Your task to perform on an android device: uninstall "Lyft - Rideshare, Bikes, Scooters & Transit" Image 0: 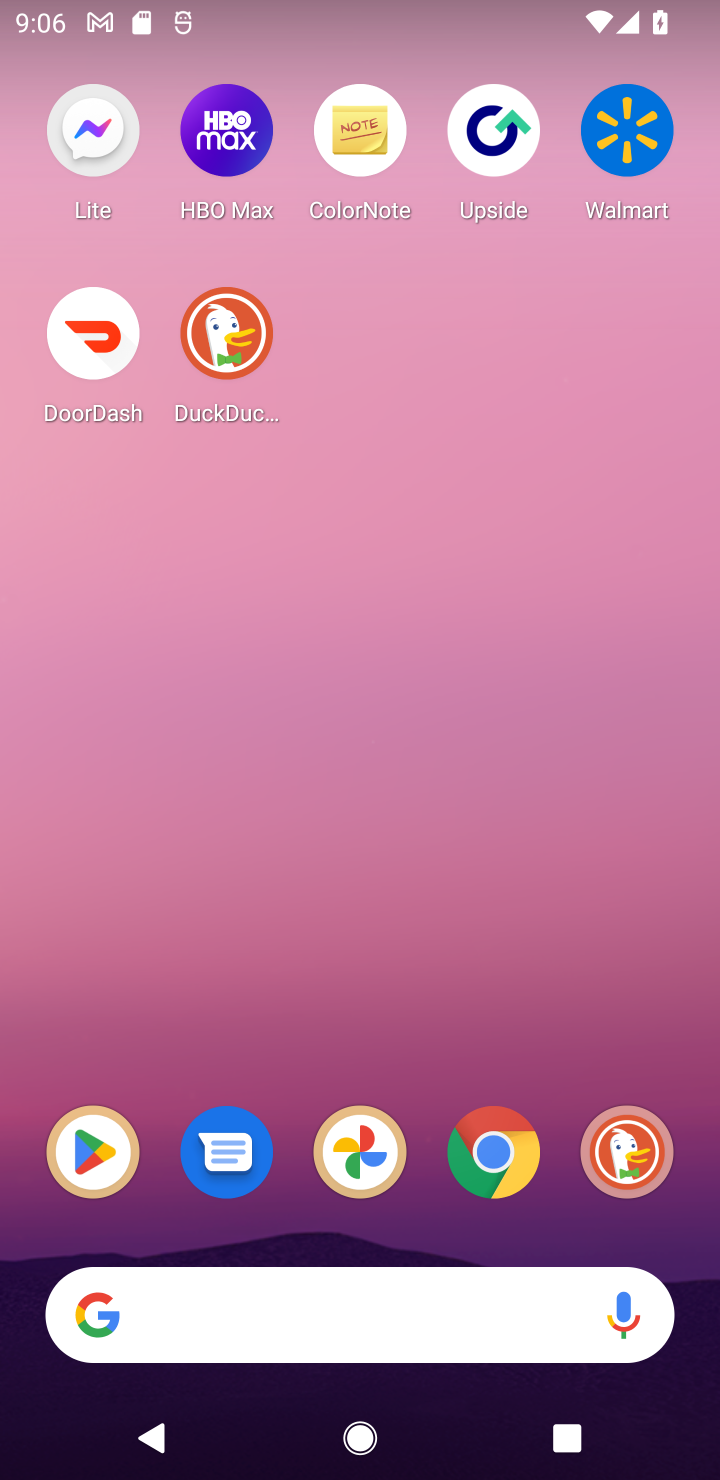
Step 0: drag from (355, 937) to (359, 226)
Your task to perform on an android device: uninstall "Lyft - Rideshare, Bikes, Scooters & Transit" Image 1: 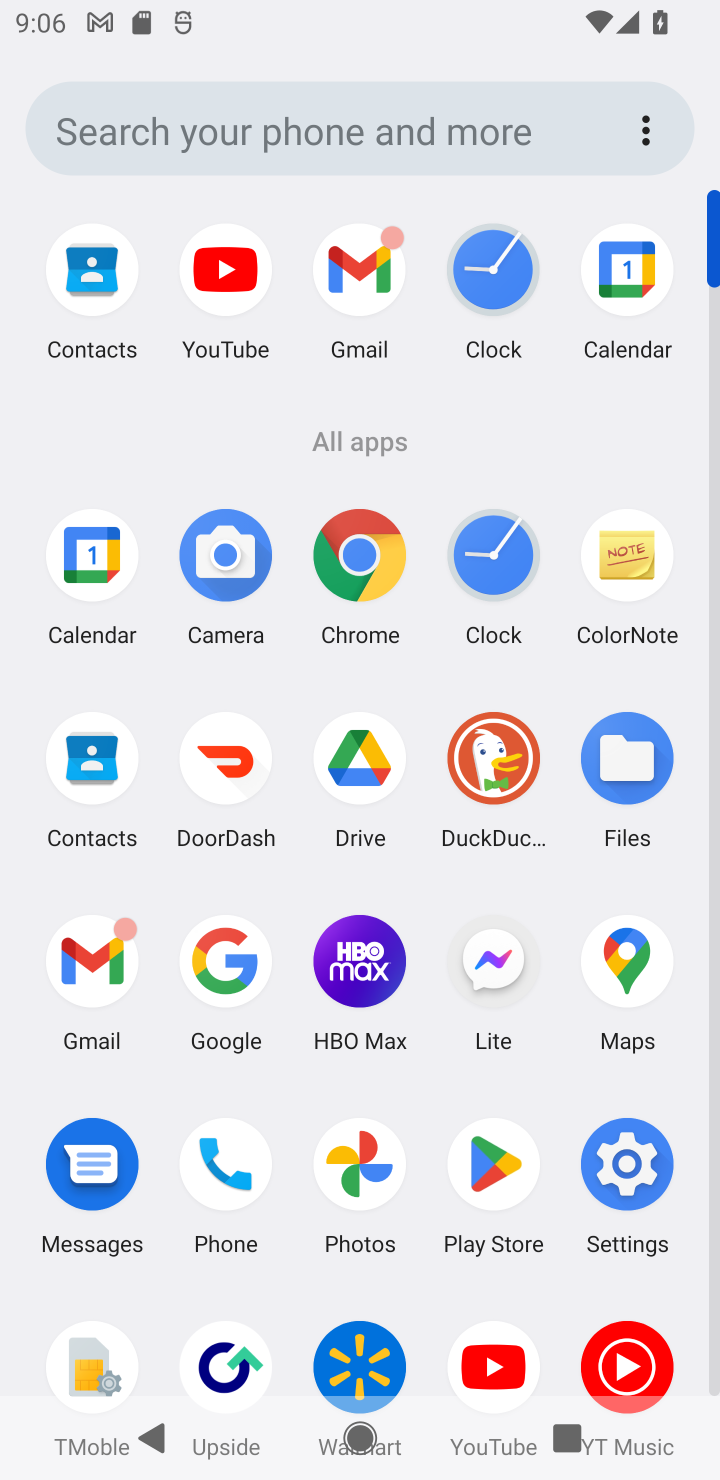
Step 1: click (509, 1160)
Your task to perform on an android device: uninstall "Lyft - Rideshare, Bikes, Scooters & Transit" Image 2: 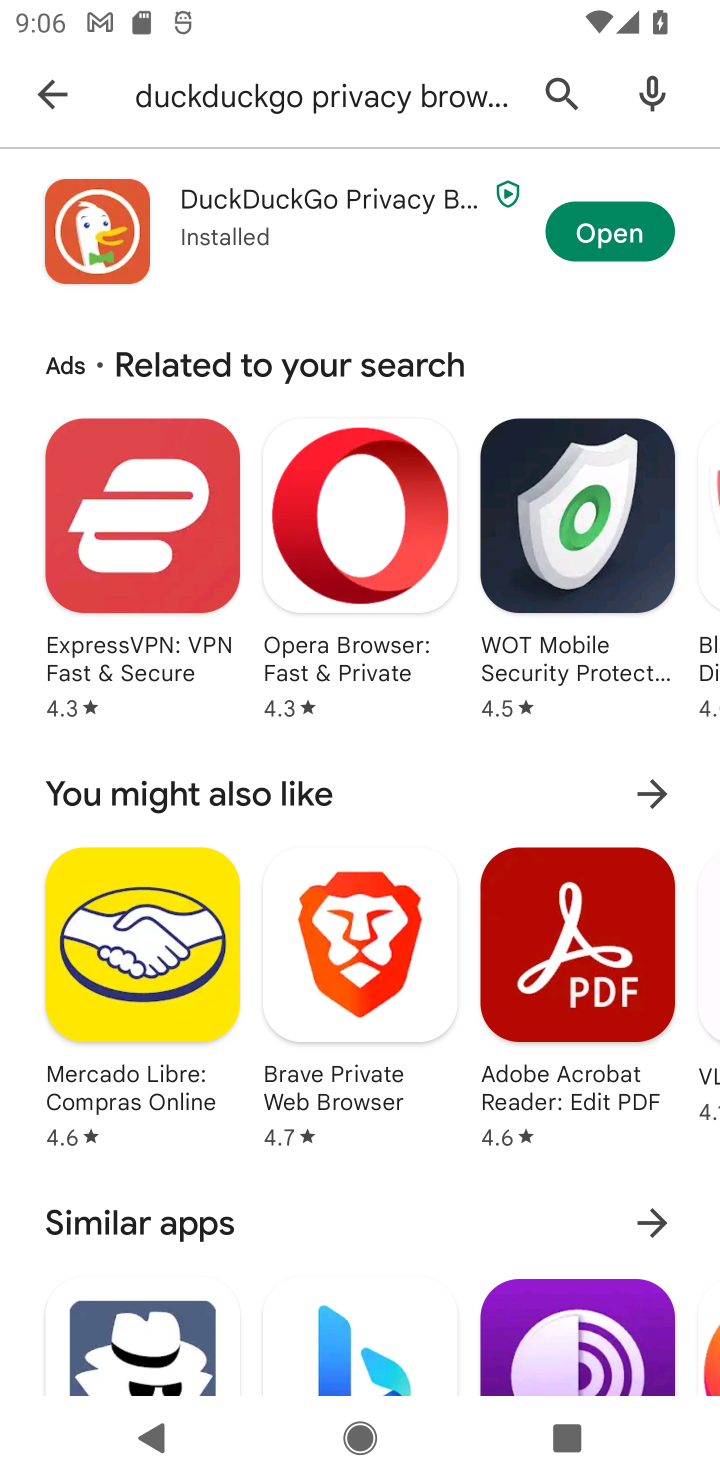
Step 2: click (44, 80)
Your task to perform on an android device: uninstall "Lyft - Rideshare, Bikes, Scooters & Transit" Image 3: 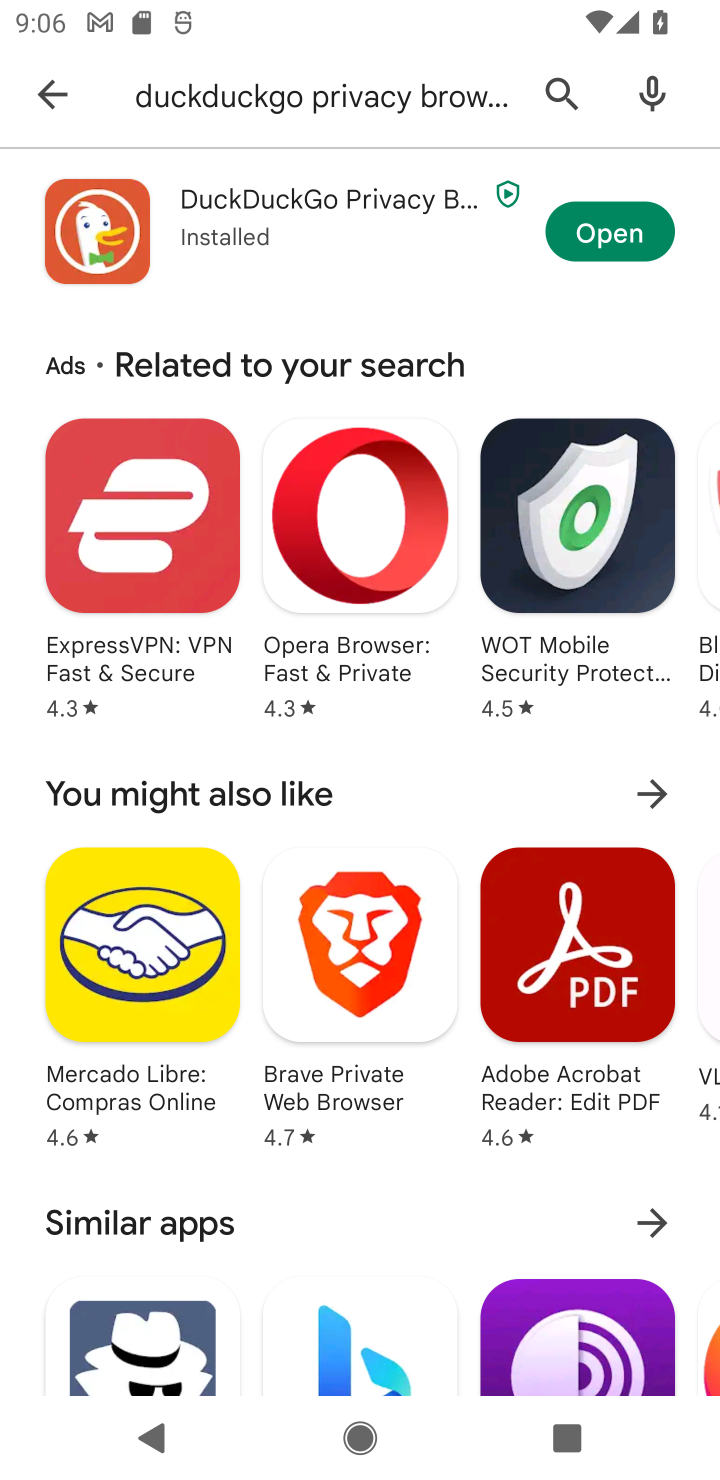
Step 3: click (44, 80)
Your task to perform on an android device: uninstall "Lyft - Rideshare, Bikes, Scooters & Transit" Image 4: 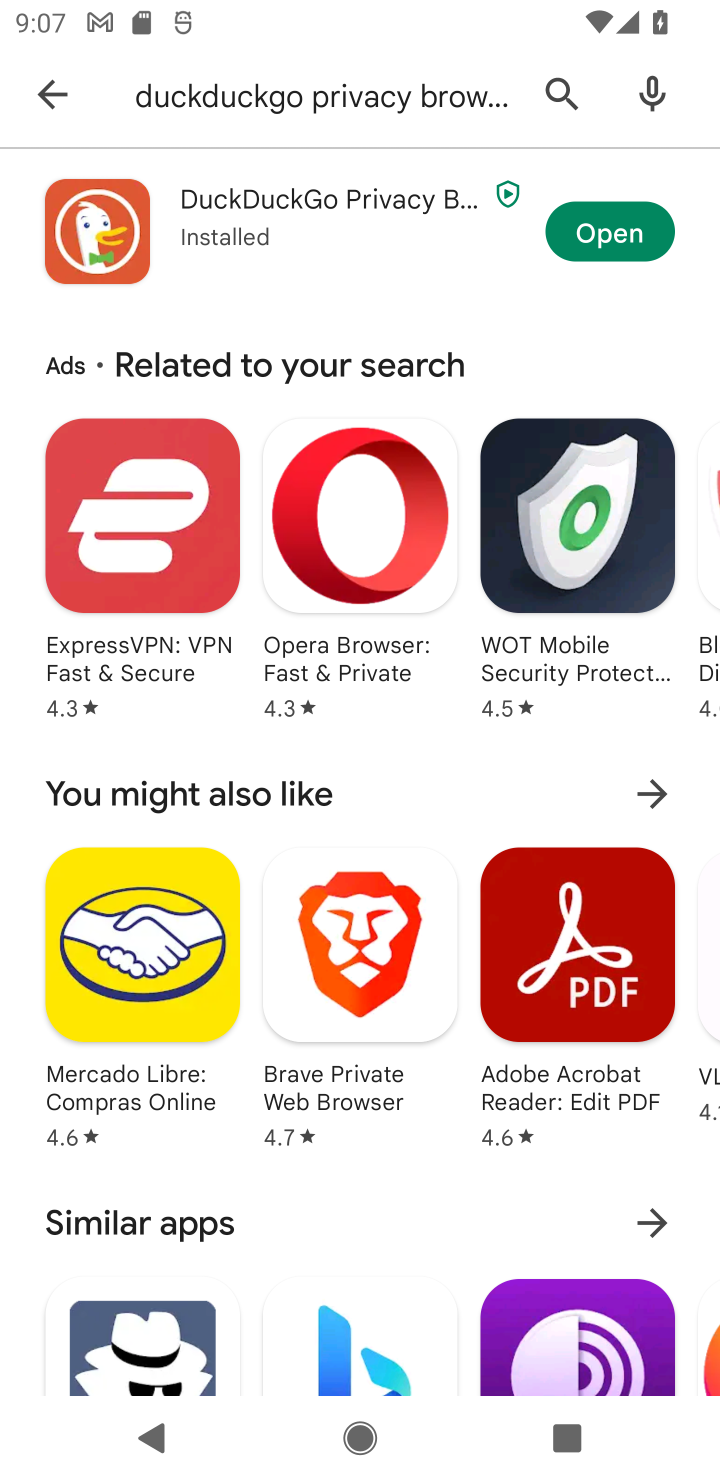
Step 4: click (49, 109)
Your task to perform on an android device: uninstall "Lyft - Rideshare, Bikes, Scooters & Transit" Image 5: 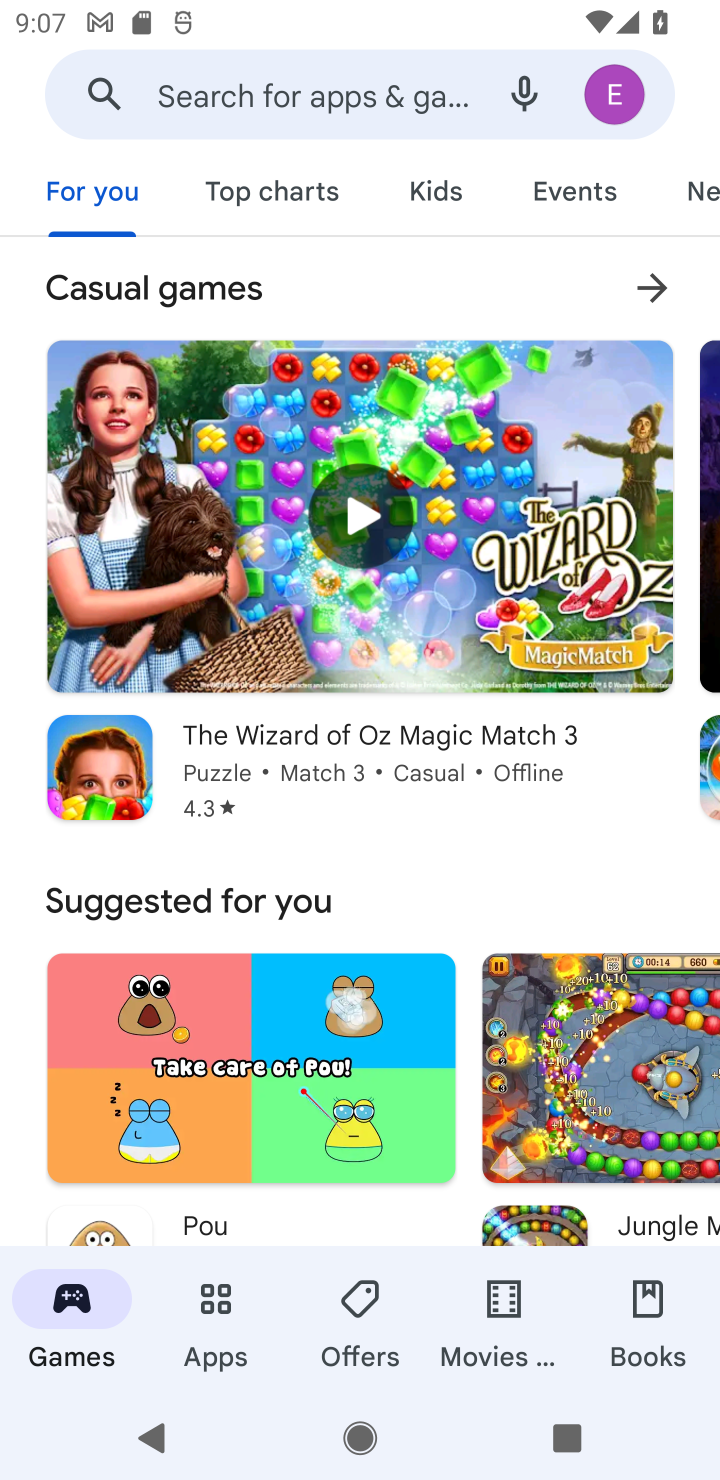
Step 5: click (176, 107)
Your task to perform on an android device: uninstall "Lyft - Rideshare, Bikes, Scooters & Transit" Image 6: 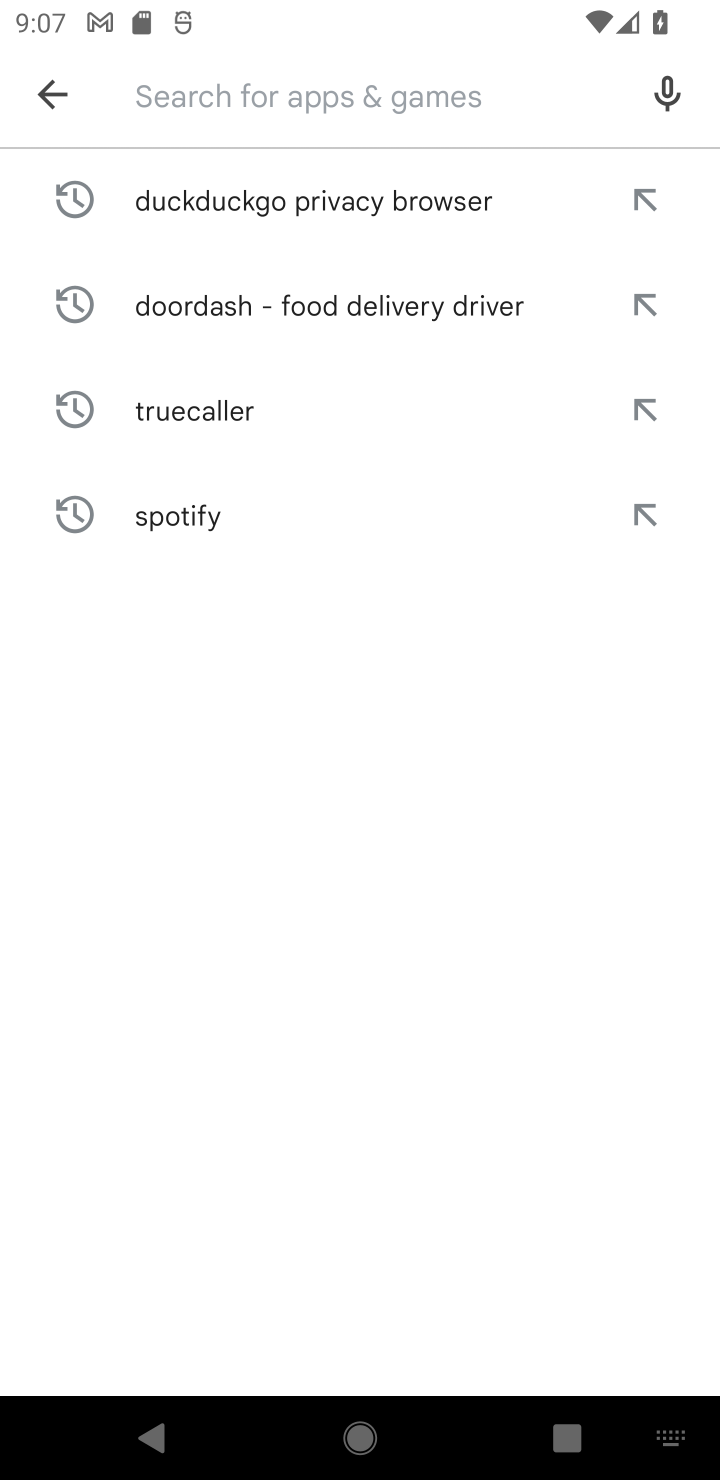
Step 6: type "Lyft"
Your task to perform on an android device: uninstall "Lyft - Rideshare, Bikes, Scooters & Transit" Image 7: 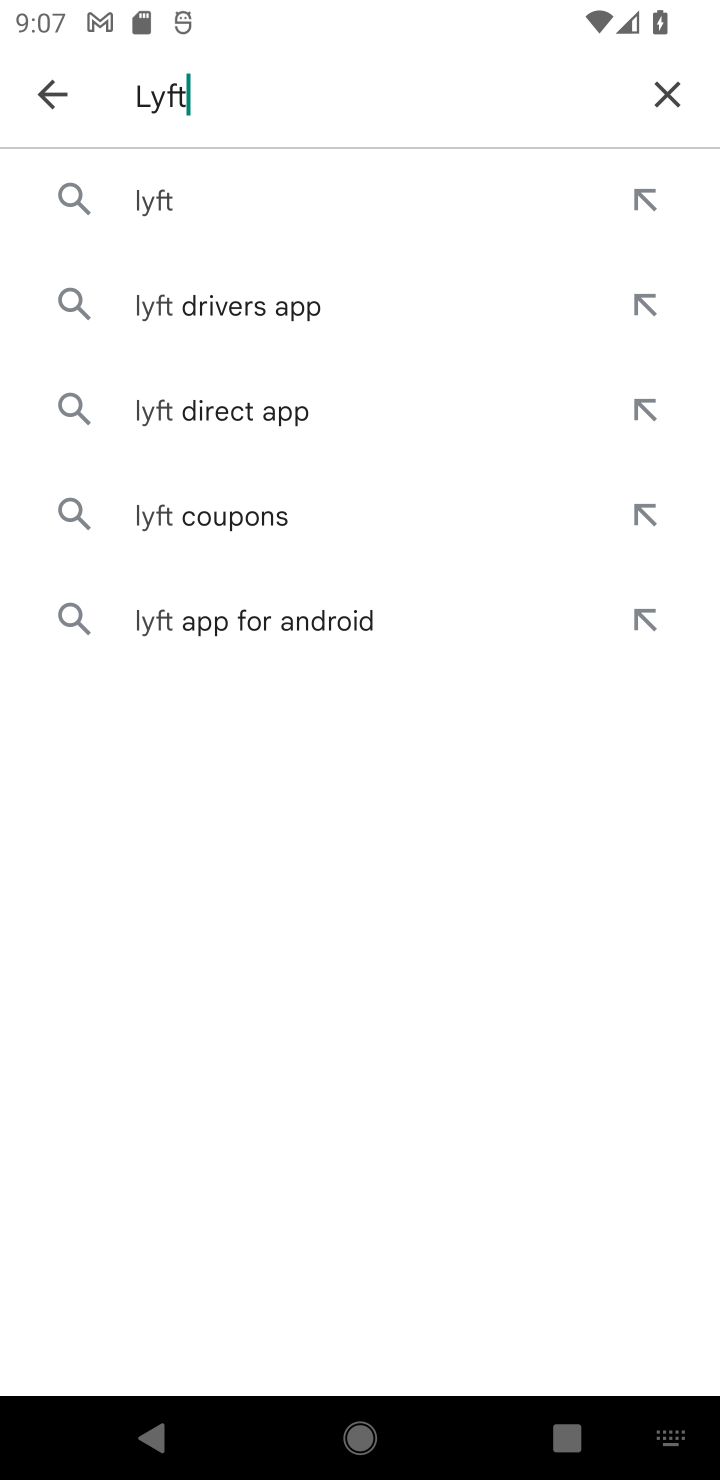
Step 7: click (151, 208)
Your task to perform on an android device: uninstall "Lyft - Rideshare, Bikes, Scooters & Transit" Image 8: 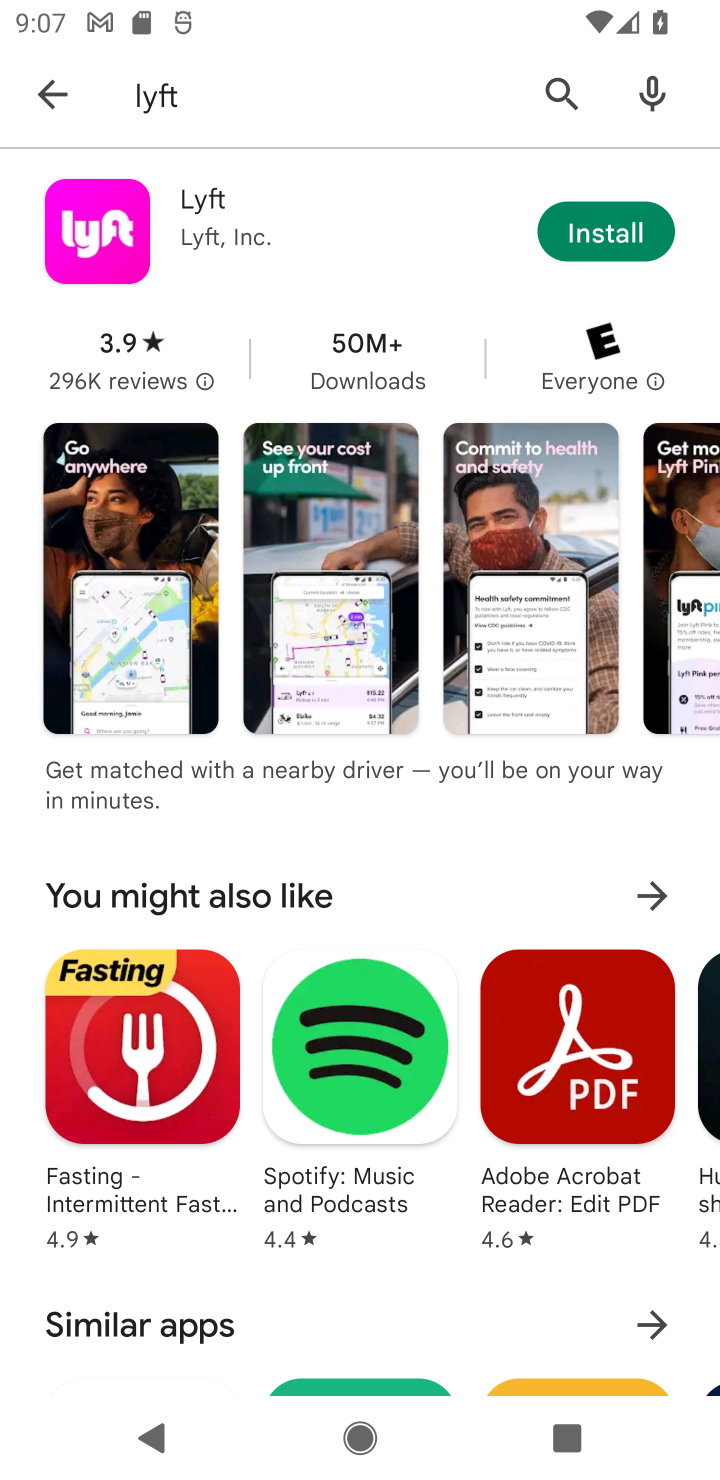
Step 8: click (339, 201)
Your task to perform on an android device: uninstall "Lyft - Rideshare, Bikes, Scooters & Transit" Image 9: 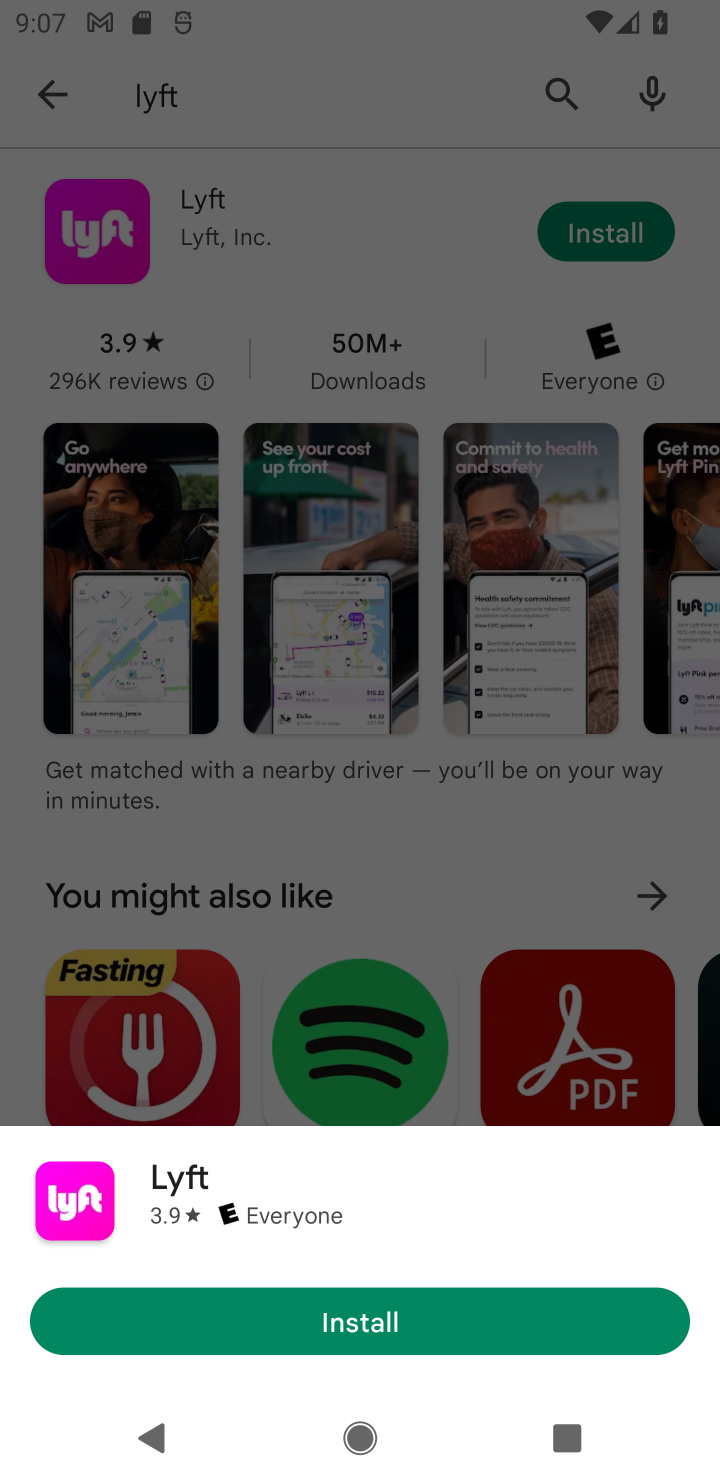
Step 9: task complete